Your task to perform on an android device: Open settings Image 0: 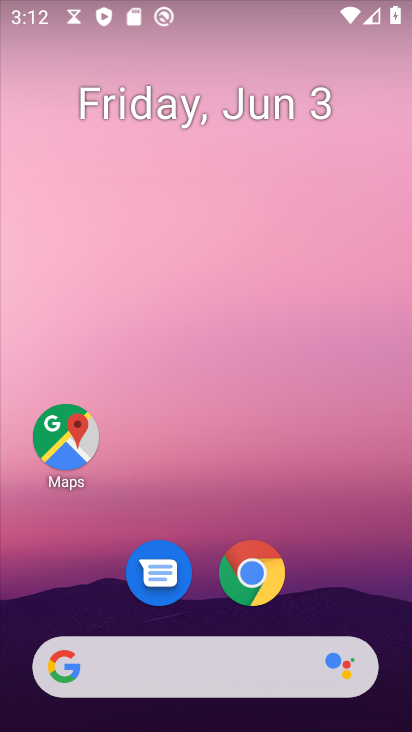
Step 0: drag from (380, 665) to (355, 65)
Your task to perform on an android device: Open settings Image 1: 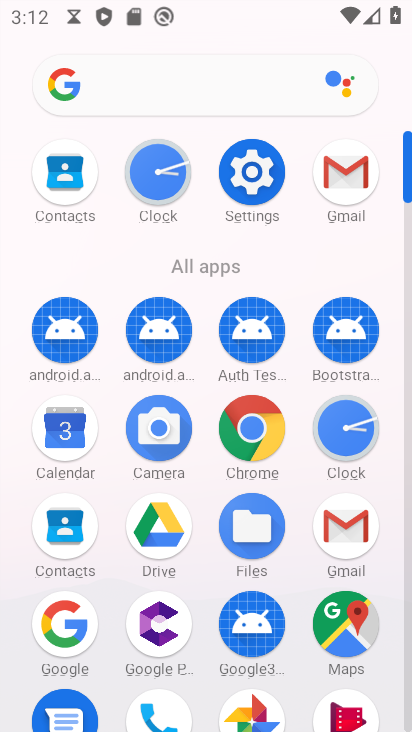
Step 1: click (223, 194)
Your task to perform on an android device: Open settings Image 2: 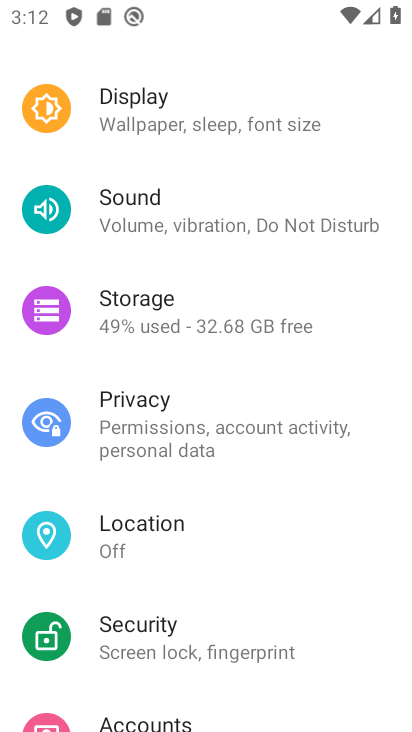
Step 2: task complete